Your task to perform on an android device: Open the Google play store app Image 0: 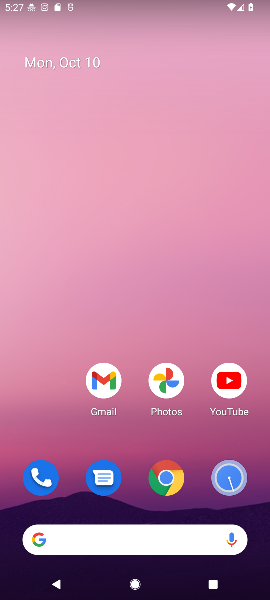
Step 0: drag from (126, 508) to (178, 171)
Your task to perform on an android device: Open the Google play store app Image 1: 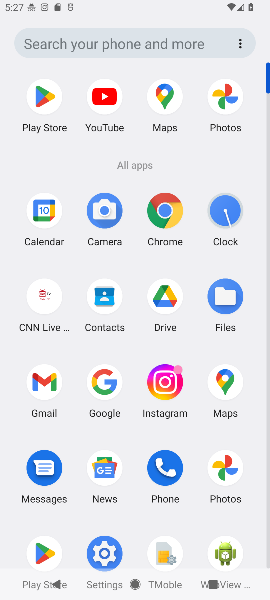
Step 1: click (34, 558)
Your task to perform on an android device: Open the Google play store app Image 2: 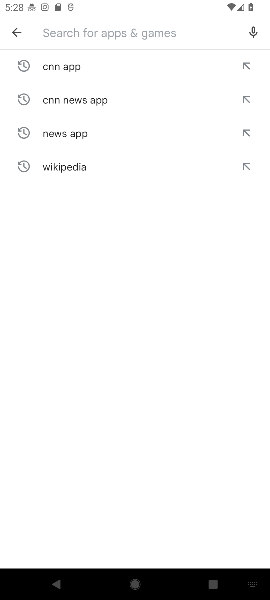
Step 2: click (23, 43)
Your task to perform on an android device: Open the Google play store app Image 3: 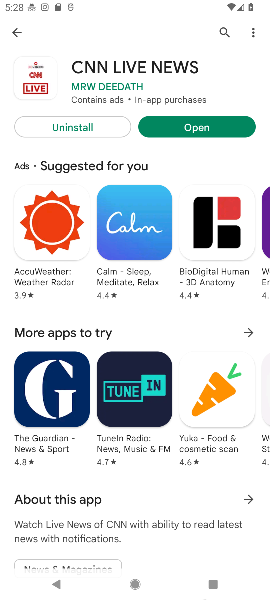
Step 3: task complete